Your task to perform on an android device: Go to eBay Image 0: 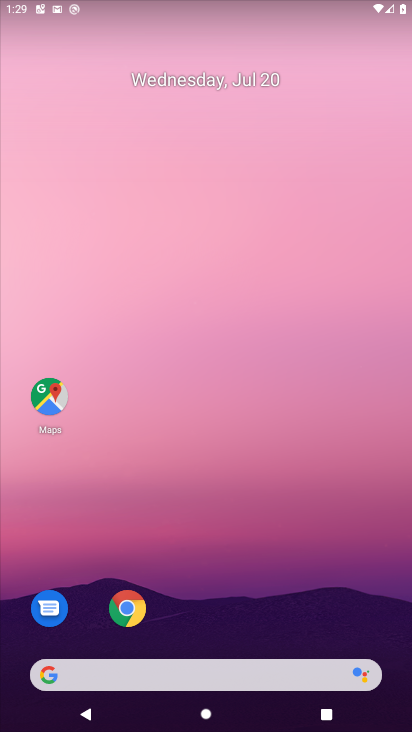
Step 0: drag from (194, 666) to (183, 182)
Your task to perform on an android device: Go to eBay Image 1: 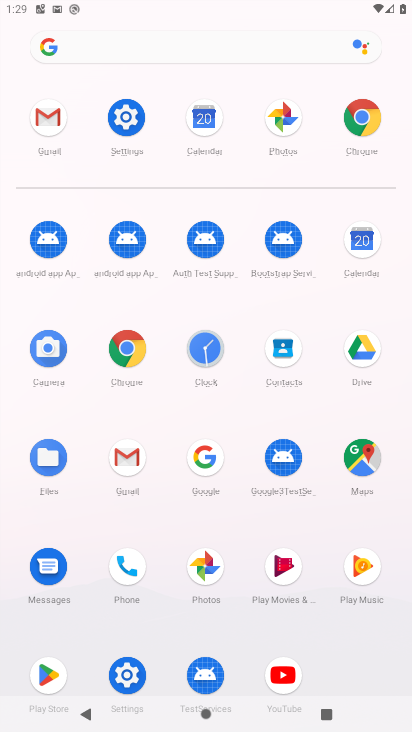
Step 1: click (363, 132)
Your task to perform on an android device: Go to eBay Image 2: 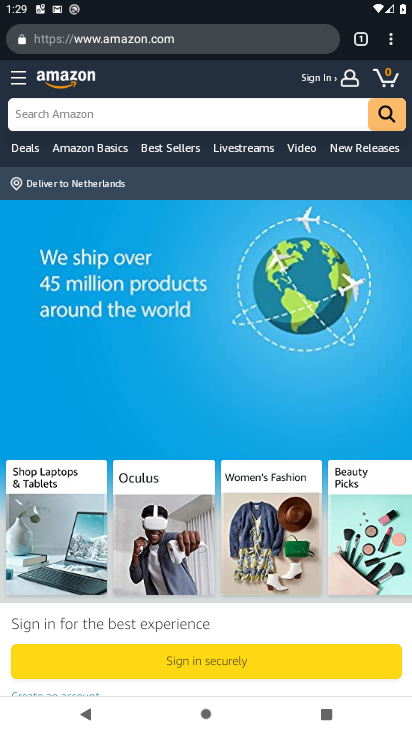
Step 2: click (364, 48)
Your task to perform on an android device: Go to eBay Image 3: 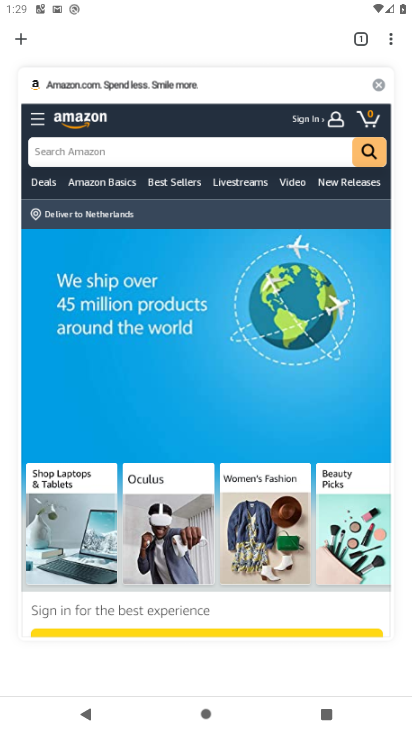
Step 3: click (380, 83)
Your task to perform on an android device: Go to eBay Image 4: 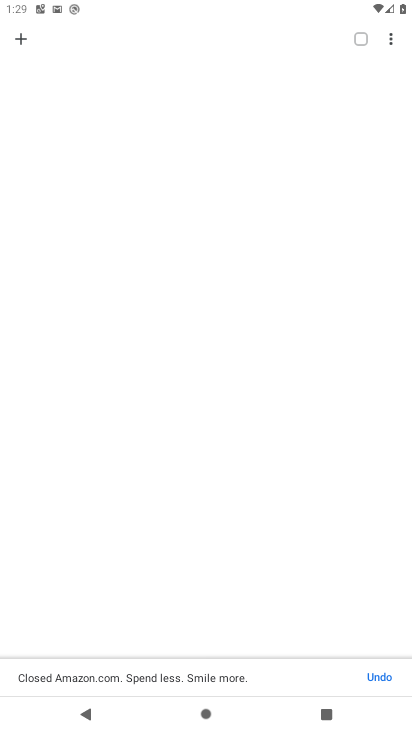
Step 4: click (17, 43)
Your task to perform on an android device: Go to eBay Image 5: 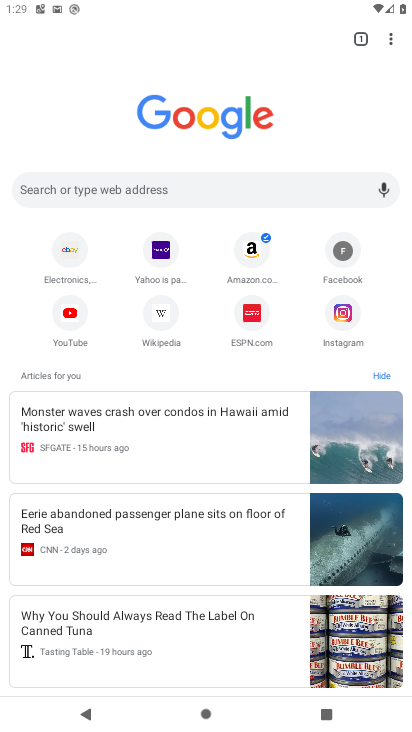
Step 5: click (67, 253)
Your task to perform on an android device: Go to eBay Image 6: 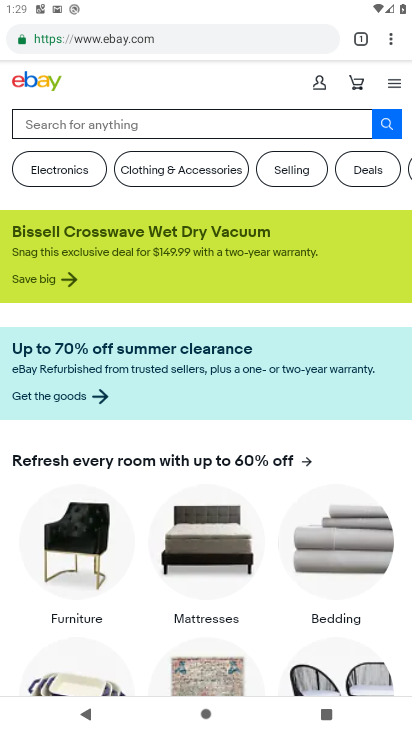
Step 6: task complete